Your task to perform on an android device: change the clock display to analog Image 0: 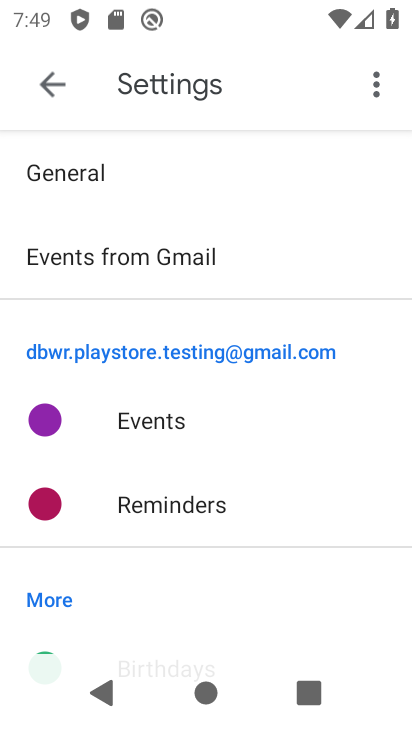
Step 0: press home button
Your task to perform on an android device: change the clock display to analog Image 1: 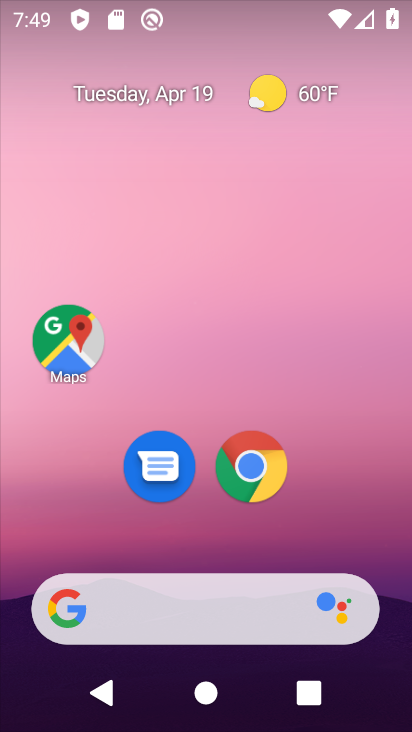
Step 1: drag from (340, 544) to (385, 181)
Your task to perform on an android device: change the clock display to analog Image 2: 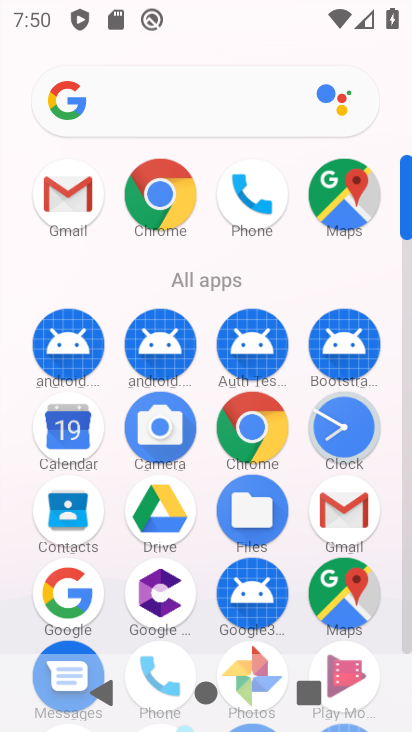
Step 2: click (335, 419)
Your task to perform on an android device: change the clock display to analog Image 3: 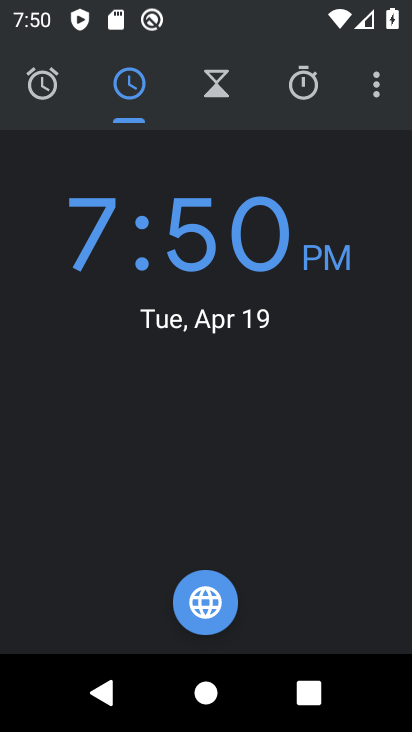
Step 3: click (379, 76)
Your task to perform on an android device: change the clock display to analog Image 4: 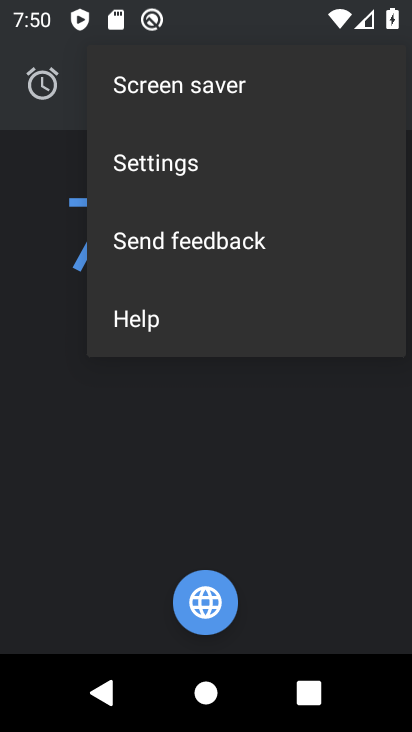
Step 4: click (242, 157)
Your task to perform on an android device: change the clock display to analog Image 5: 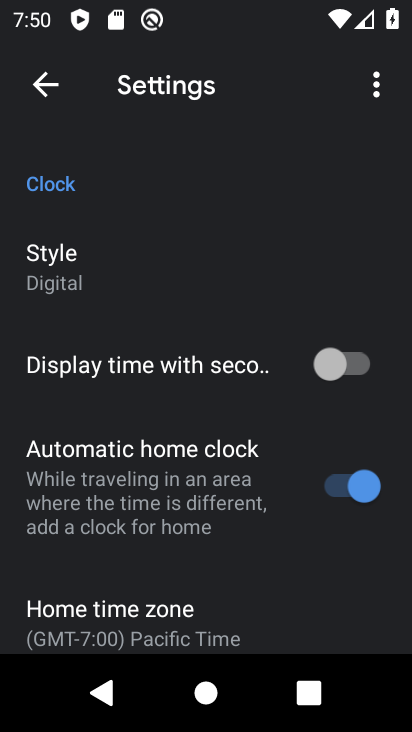
Step 5: click (125, 265)
Your task to perform on an android device: change the clock display to analog Image 6: 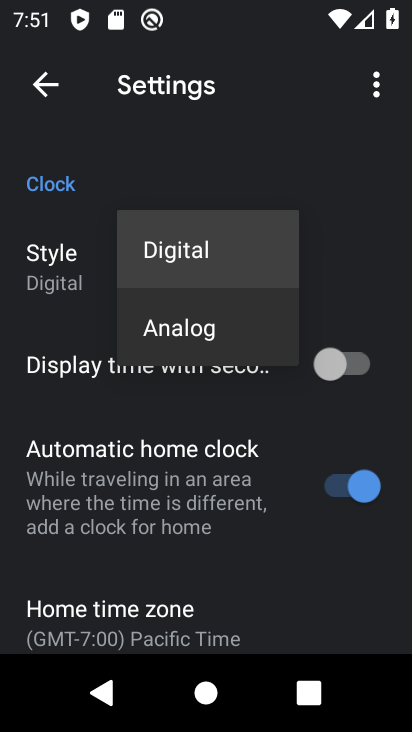
Step 6: click (158, 313)
Your task to perform on an android device: change the clock display to analog Image 7: 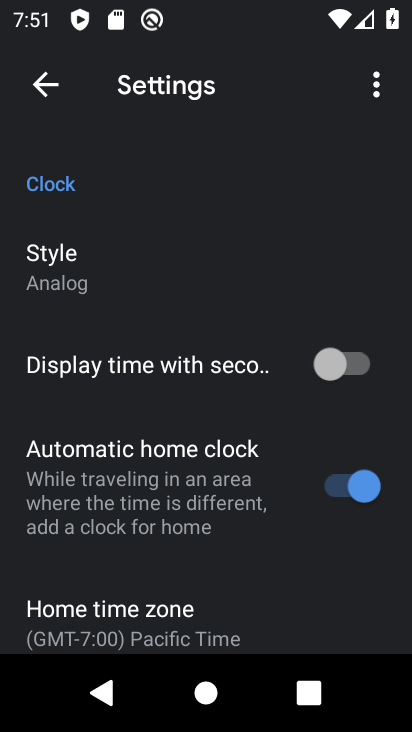
Step 7: task complete